Your task to perform on an android device: allow notifications from all sites in the chrome app Image 0: 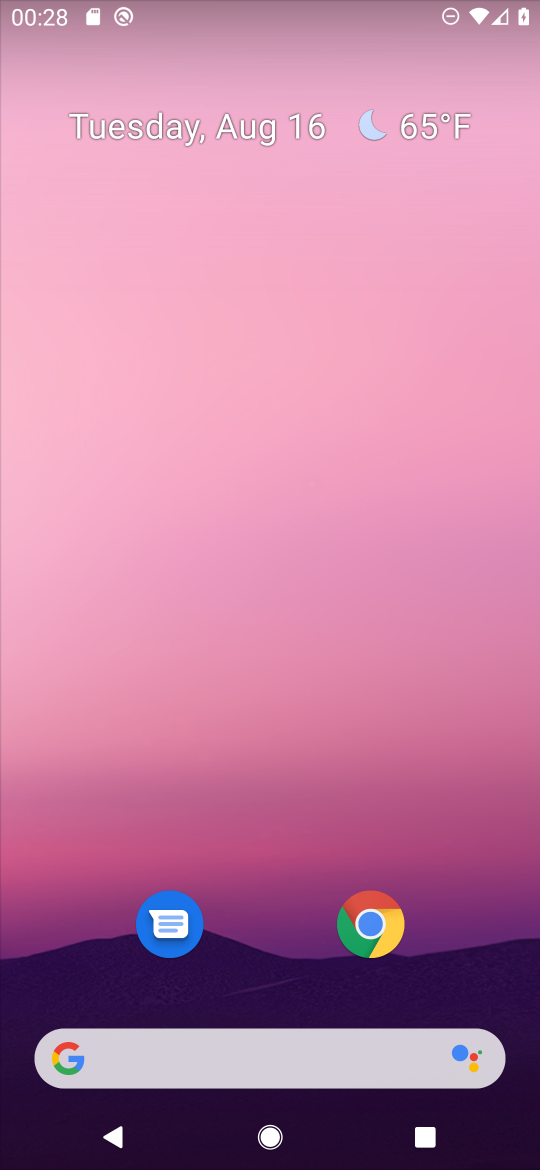
Step 0: click (375, 912)
Your task to perform on an android device: allow notifications from all sites in the chrome app Image 1: 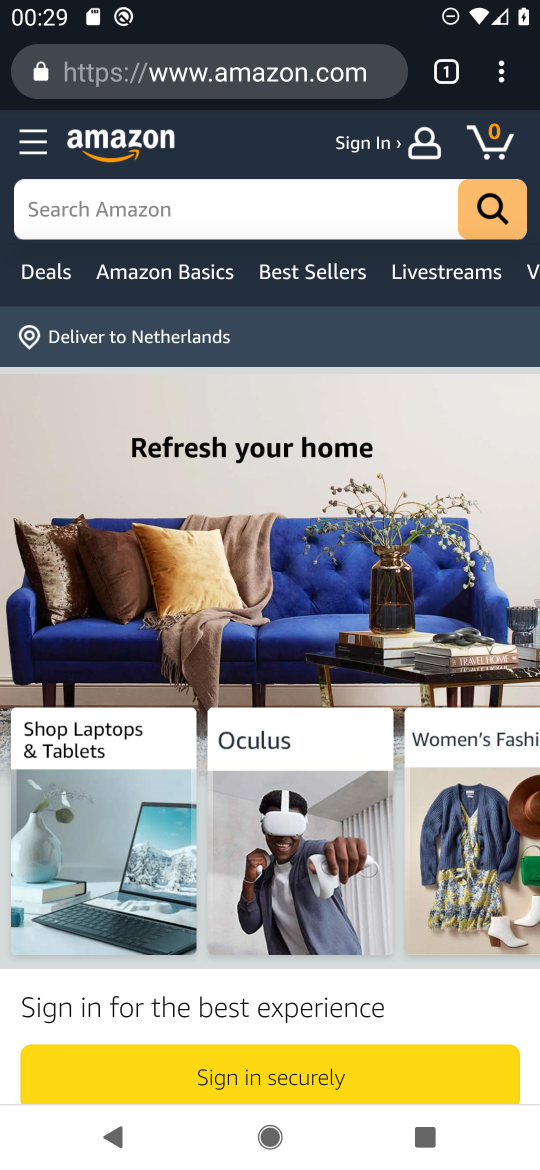
Step 1: click (511, 65)
Your task to perform on an android device: allow notifications from all sites in the chrome app Image 2: 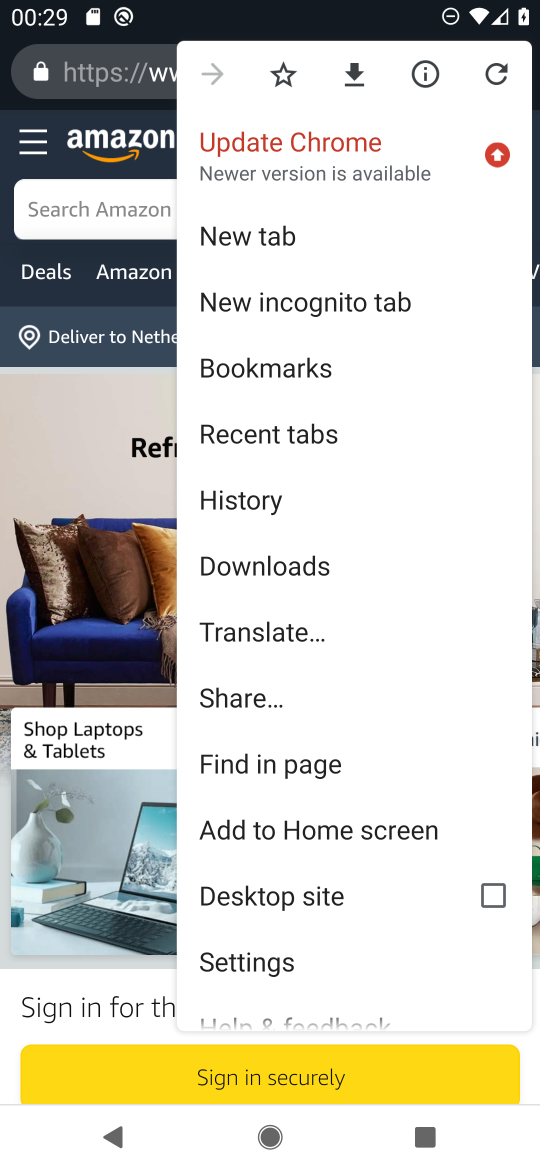
Step 2: click (262, 957)
Your task to perform on an android device: allow notifications from all sites in the chrome app Image 3: 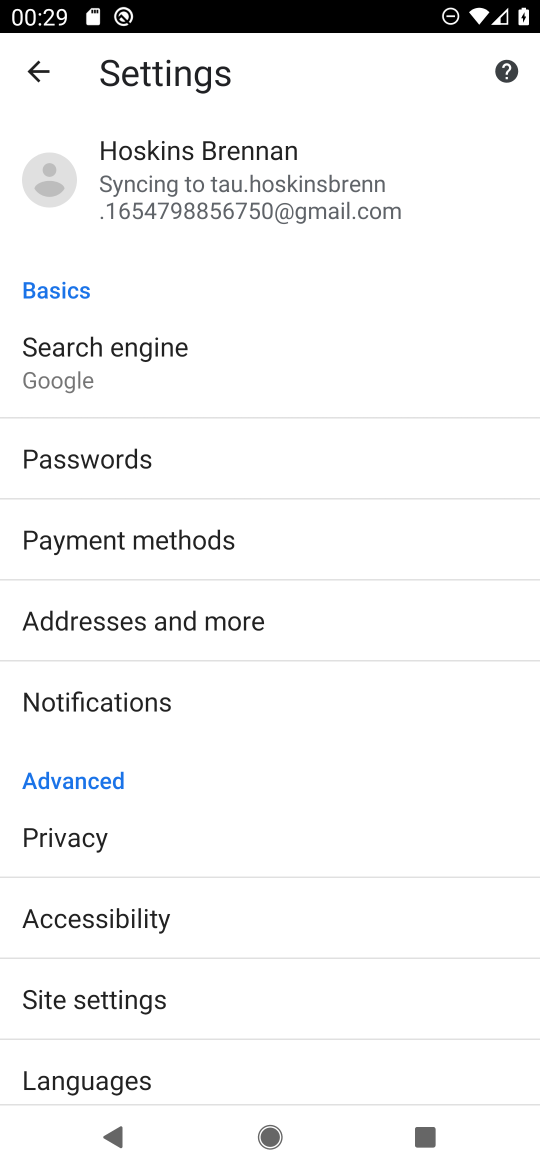
Step 3: click (87, 1010)
Your task to perform on an android device: allow notifications from all sites in the chrome app Image 4: 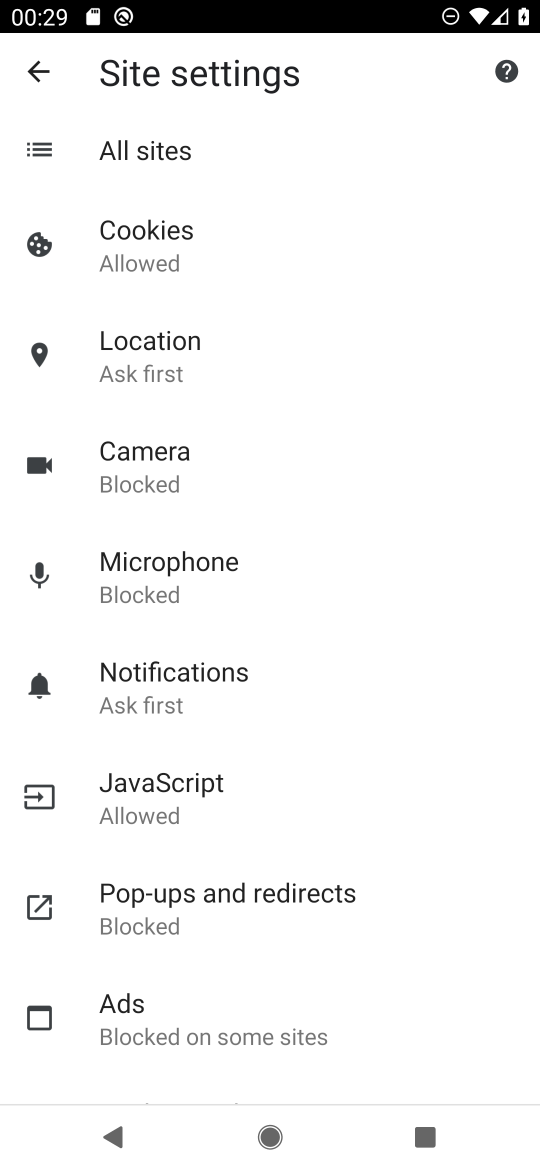
Step 4: click (189, 703)
Your task to perform on an android device: allow notifications from all sites in the chrome app Image 5: 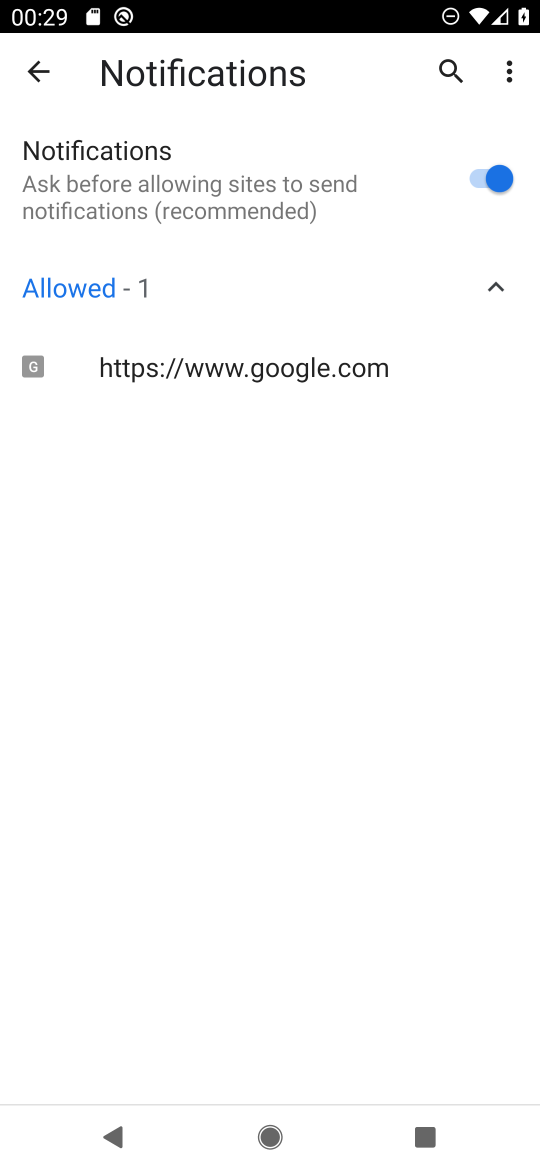
Step 5: task complete